Your task to perform on an android device: Check the weather Image 0: 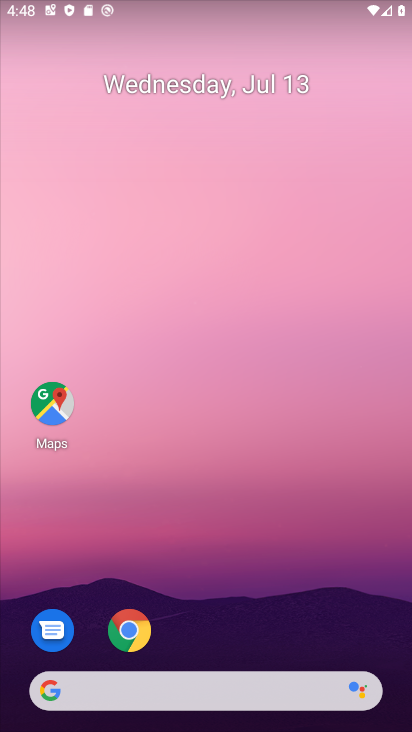
Step 0: click (237, 692)
Your task to perform on an android device: Check the weather Image 1: 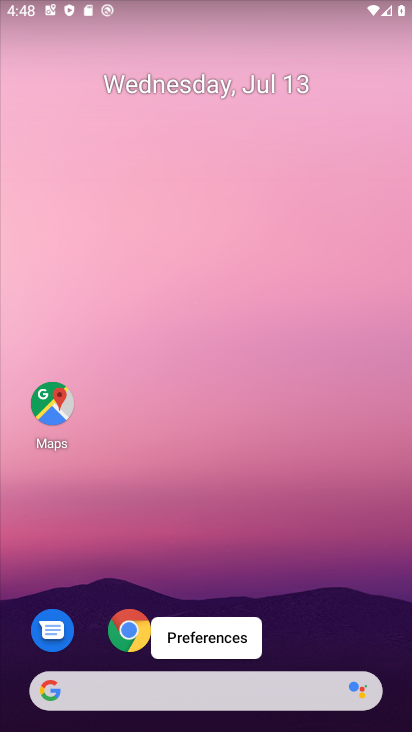
Step 1: click (244, 682)
Your task to perform on an android device: Check the weather Image 2: 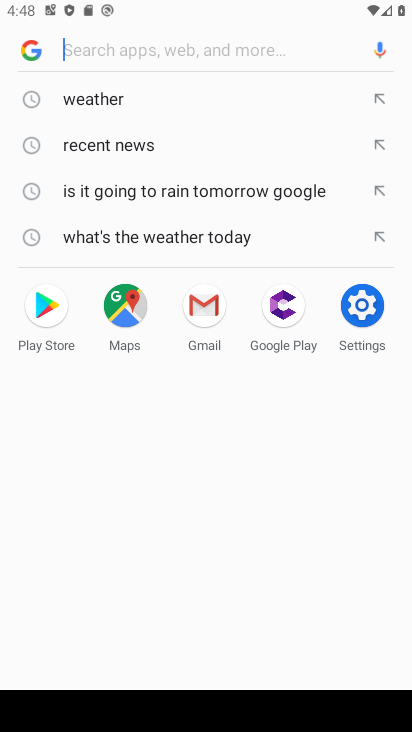
Step 2: type "Weather"
Your task to perform on an android device: Check the weather Image 3: 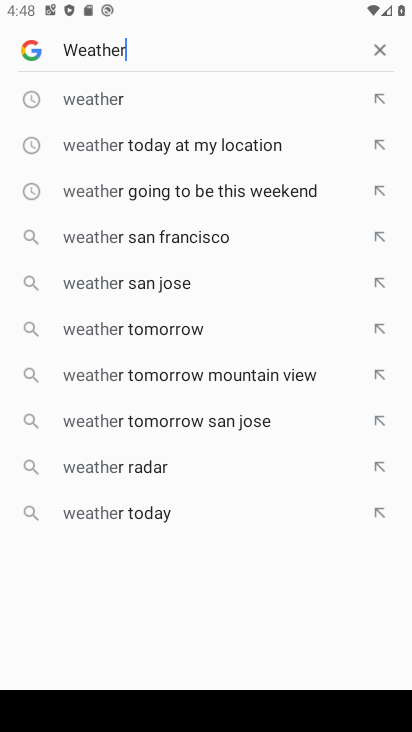
Step 3: click (134, 103)
Your task to perform on an android device: Check the weather Image 4: 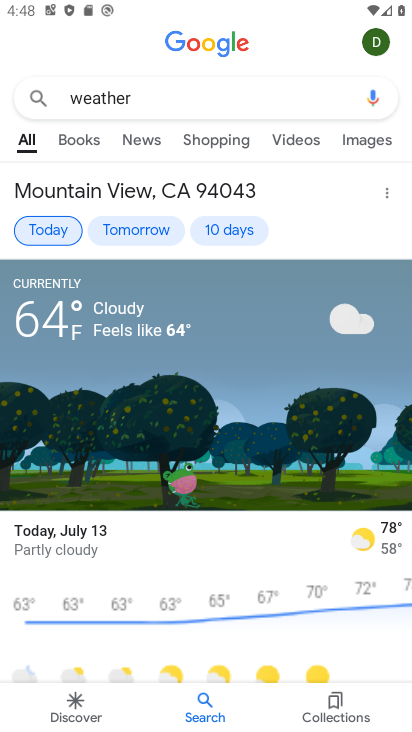
Step 4: task complete